Your task to perform on an android device: Go to Google maps Image 0: 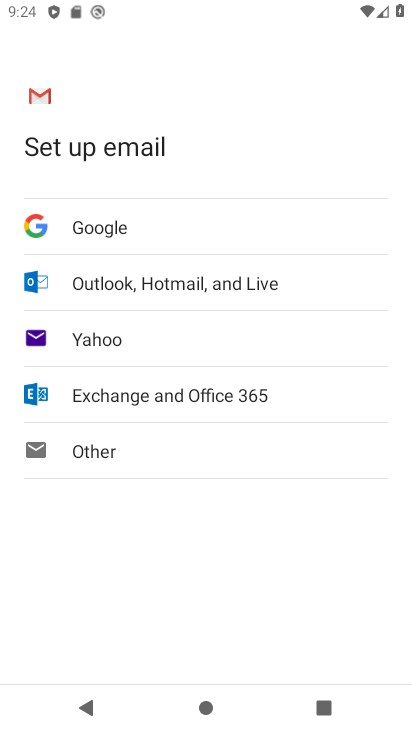
Step 0: press home button
Your task to perform on an android device: Go to Google maps Image 1: 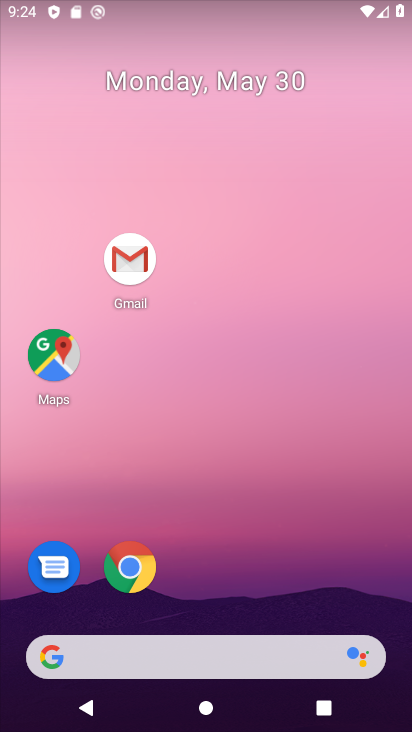
Step 1: click (71, 375)
Your task to perform on an android device: Go to Google maps Image 2: 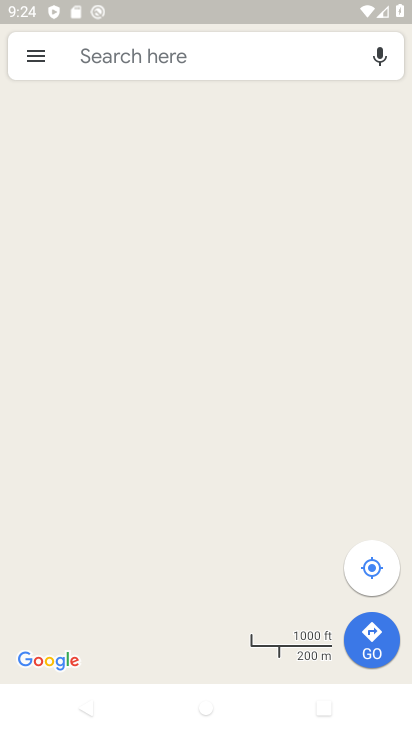
Step 2: task complete